Your task to perform on an android device: Go to calendar. Show me events next week Image 0: 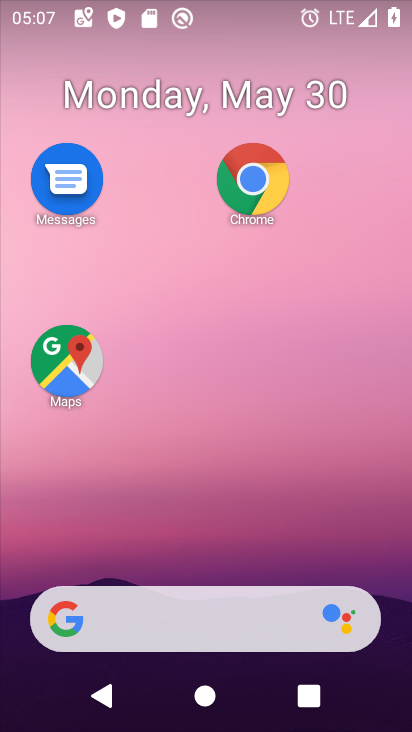
Step 0: drag from (195, 539) to (148, 12)
Your task to perform on an android device: Go to calendar. Show me events next week Image 1: 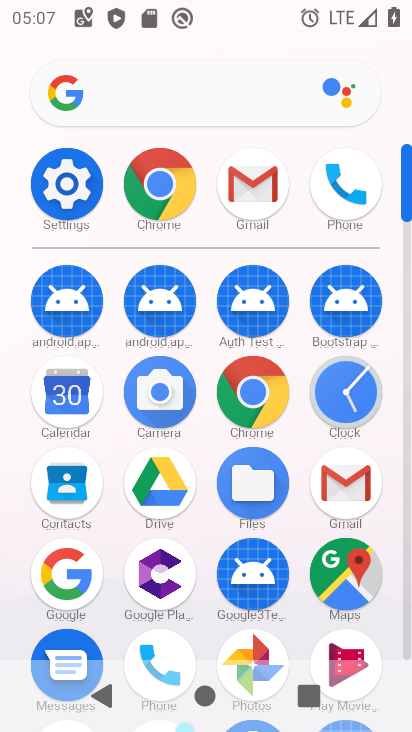
Step 1: click (48, 405)
Your task to perform on an android device: Go to calendar. Show me events next week Image 2: 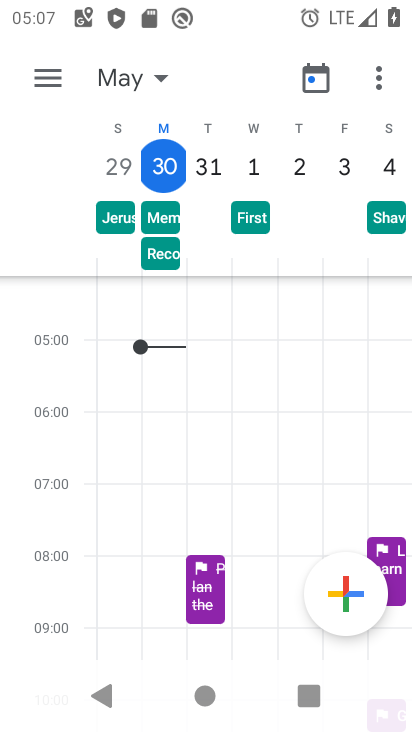
Step 2: task complete